Your task to perform on an android device: Open the Play Movies app and select the watchlist tab. Image 0: 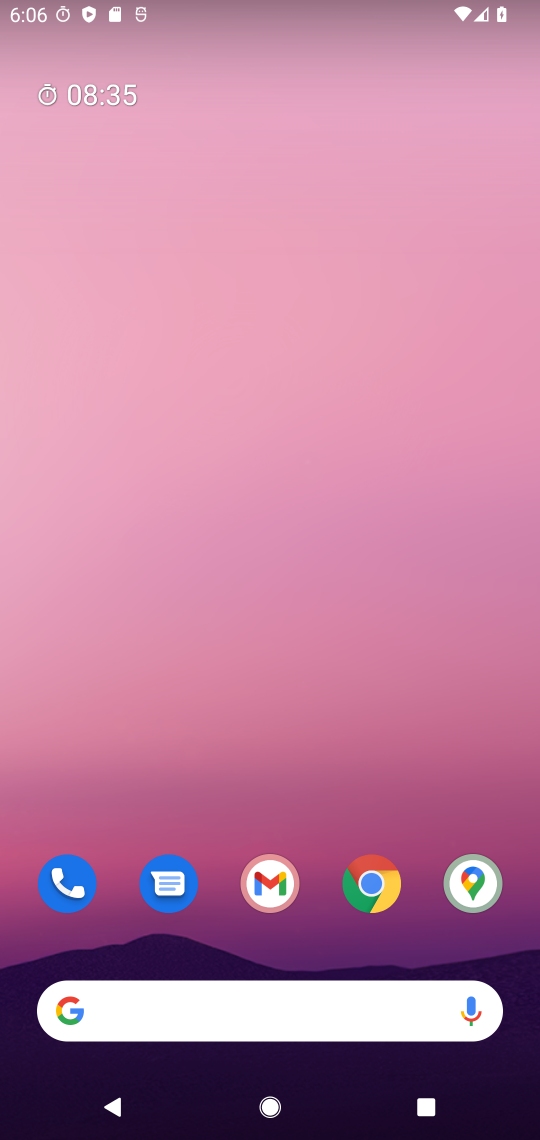
Step 0: drag from (264, 648) to (264, 176)
Your task to perform on an android device: Open the Play Movies app and select the watchlist tab. Image 1: 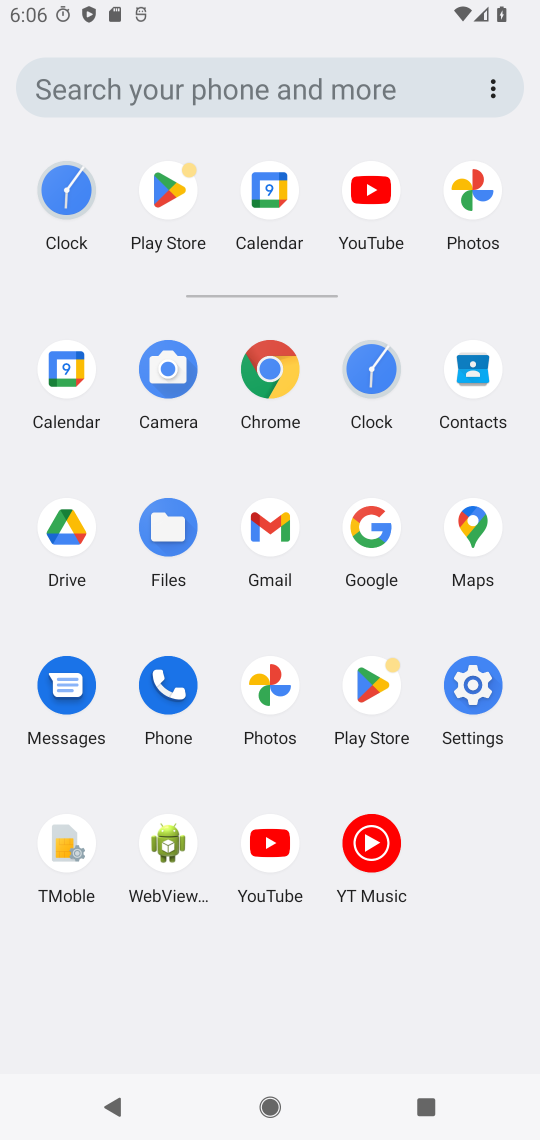
Step 1: task complete